Your task to perform on an android device: Show me popular games on the Play Store Image 0: 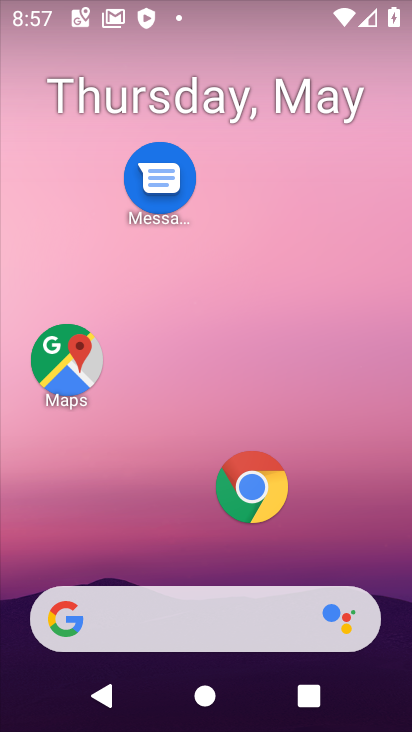
Step 0: drag from (237, 570) to (106, 44)
Your task to perform on an android device: Show me popular games on the Play Store Image 1: 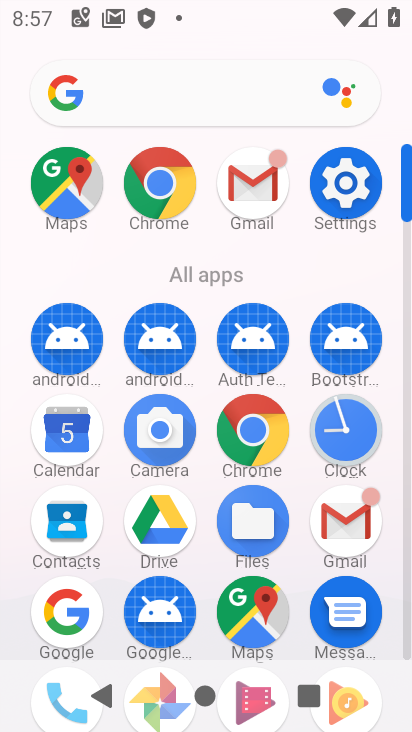
Step 1: drag from (98, 557) to (72, 230)
Your task to perform on an android device: Show me popular games on the Play Store Image 2: 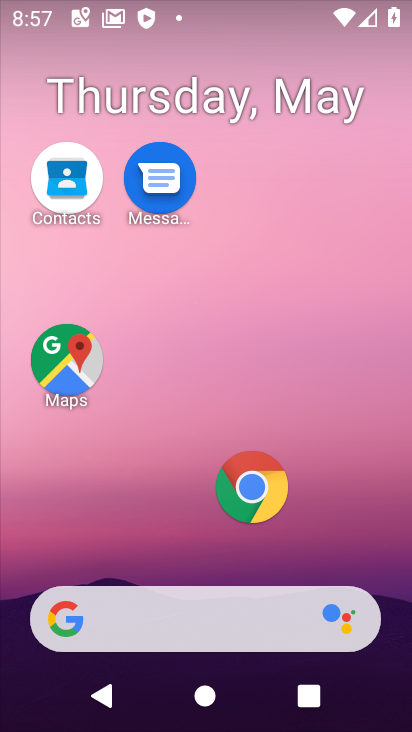
Step 2: drag from (226, 554) to (321, 441)
Your task to perform on an android device: Show me popular games on the Play Store Image 3: 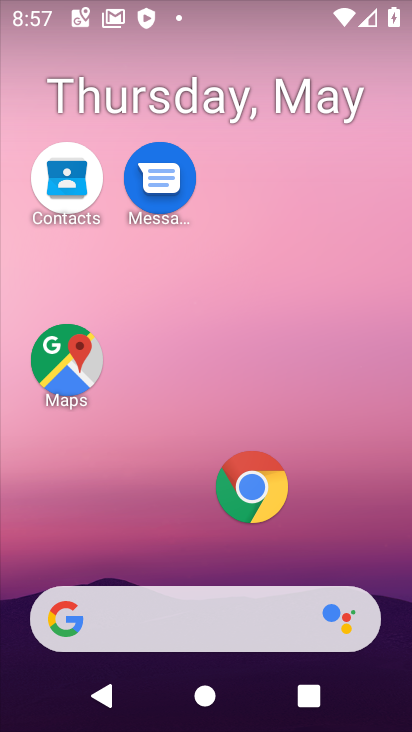
Step 3: drag from (281, 565) to (206, 29)
Your task to perform on an android device: Show me popular games on the Play Store Image 4: 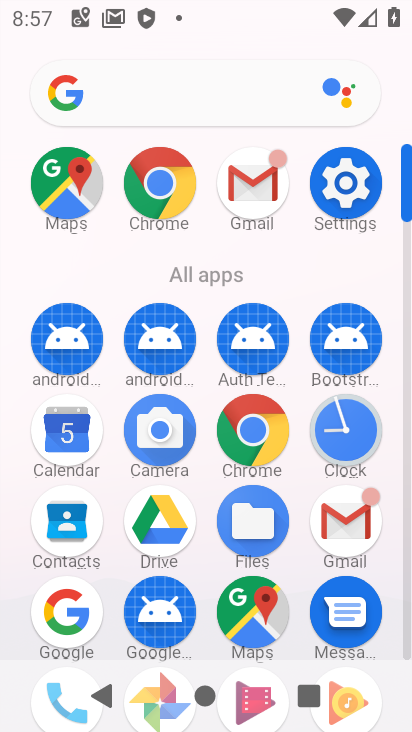
Step 4: drag from (298, 649) to (247, 359)
Your task to perform on an android device: Show me popular games on the Play Store Image 5: 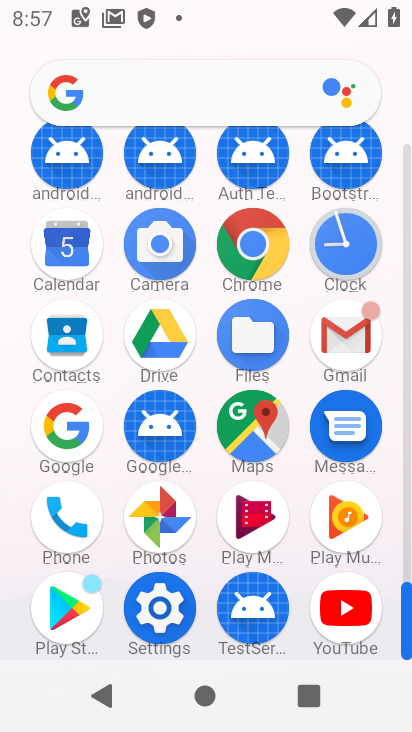
Step 5: click (76, 604)
Your task to perform on an android device: Show me popular games on the Play Store Image 6: 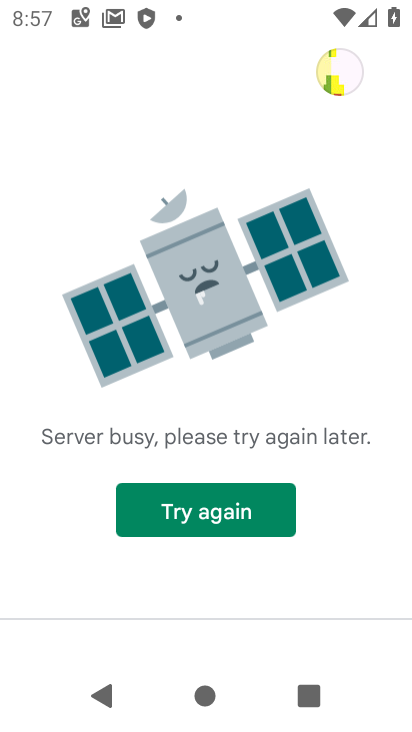
Step 6: click (219, 492)
Your task to perform on an android device: Show me popular games on the Play Store Image 7: 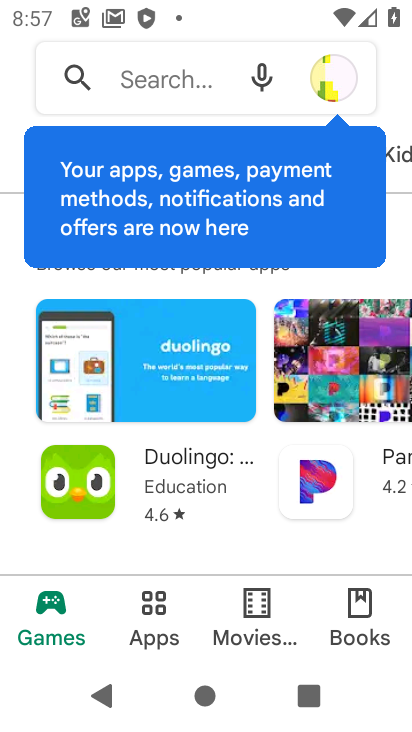
Step 7: click (159, 598)
Your task to perform on an android device: Show me popular games on the Play Store Image 8: 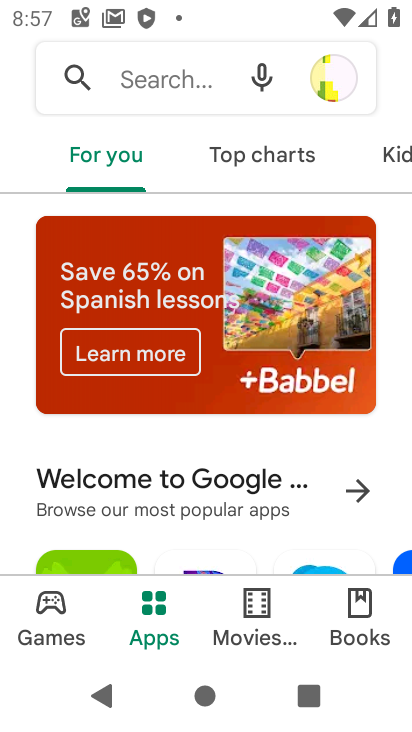
Step 8: drag from (371, 179) to (80, 167)
Your task to perform on an android device: Show me popular games on the Play Store Image 9: 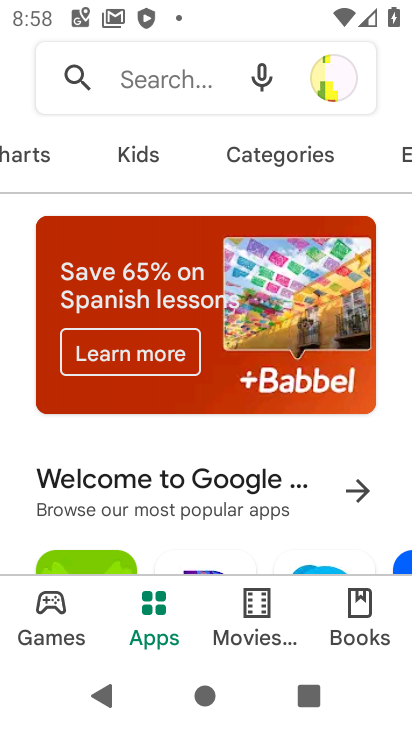
Step 9: click (296, 146)
Your task to perform on an android device: Show me popular games on the Play Store Image 10: 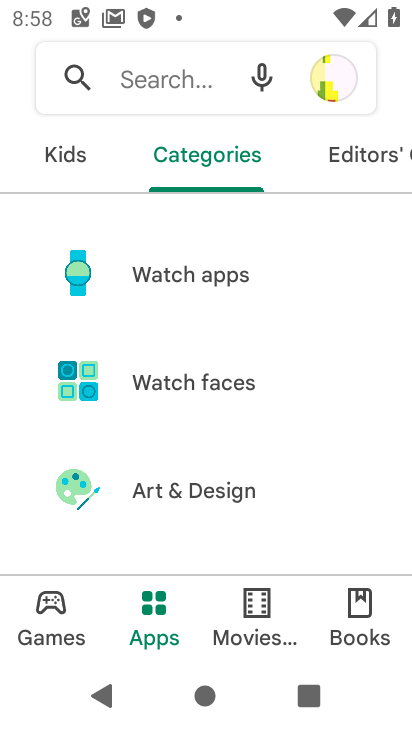
Step 10: drag from (317, 540) to (232, 114)
Your task to perform on an android device: Show me popular games on the Play Store Image 11: 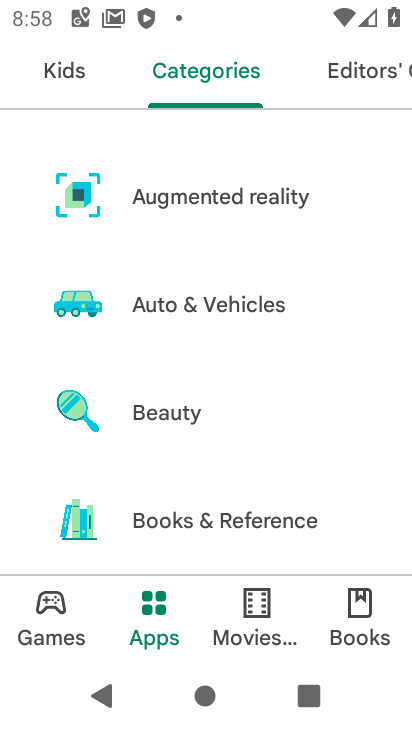
Step 11: drag from (273, 542) to (186, 1)
Your task to perform on an android device: Show me popular games on the Play Store Image 12: 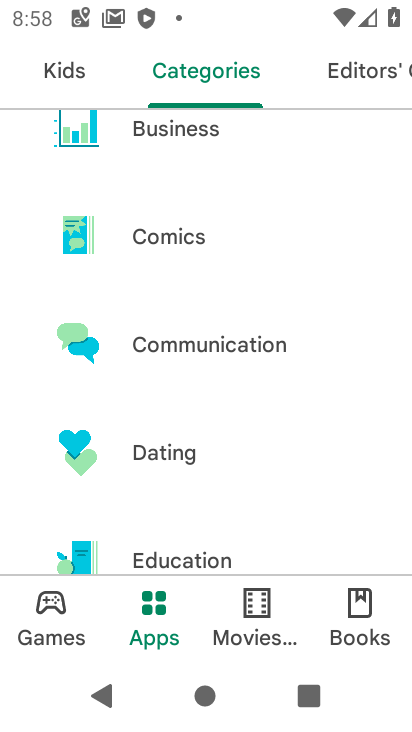
Step 12: drag from (268, 485) to (180, 59)
Your task to perform on an android device: Show me popular games on the Play Store Image 13: 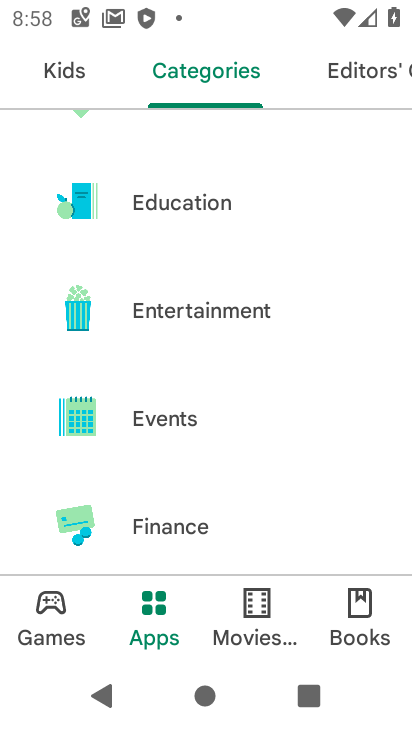
Step 13: drag from (313, 520) to (283, 45)
Your task to perform on an android device: Show me popular games on the Play Store Image 14: 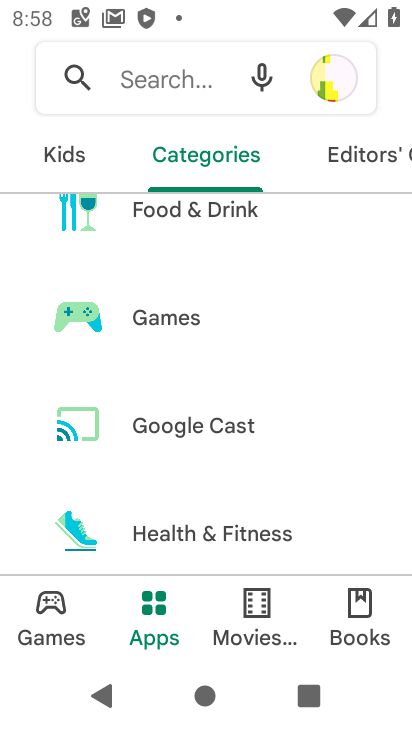
Step 14: drag from (294, 521) to (206, 24)
Your task to perform on an android device: Show me popular games on the Play Store Image 15: 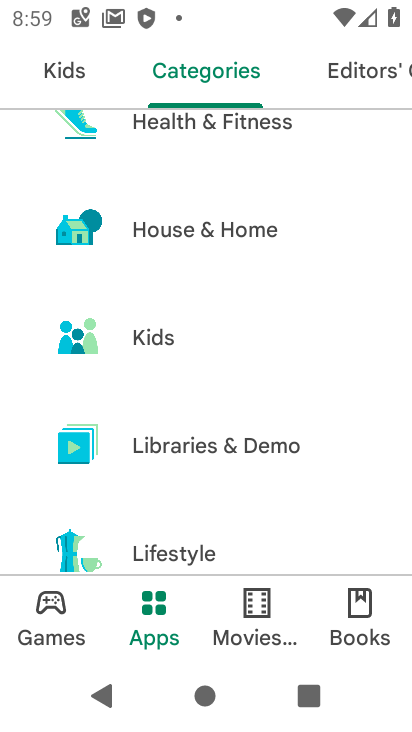
Step 15: drag from (249, 512) to (219, 173)
Your task to perform on an android device: Show me popular games on the Play Store Image 16: 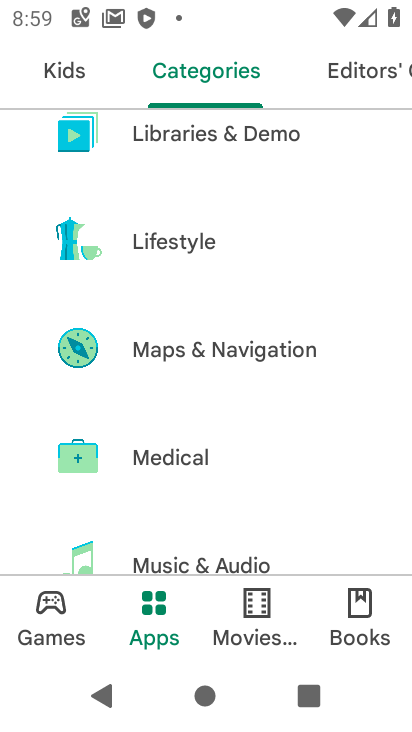
Step 16: drag from (333, 504) to (253, 120)
Your task to perform on an android device: Show me popular games on the Play Store Image 17: 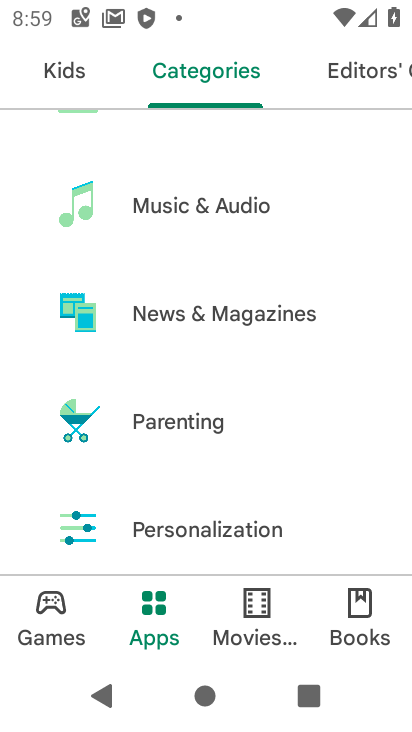
Step 17: drag from (234, 453) to (223, 318)
Your task to perform on an android device: Show me popular games on the Play Store Image 18: 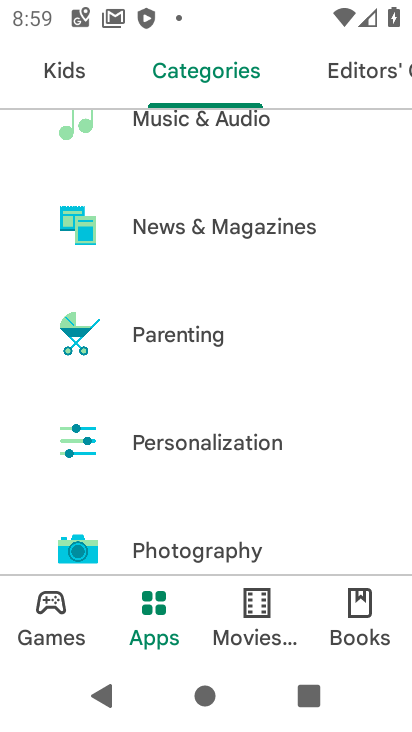
Step 18: drag from (211, 508) to (174, 130)
Your task to perform on an android device: Show me popular games on the Play Store Image 19: 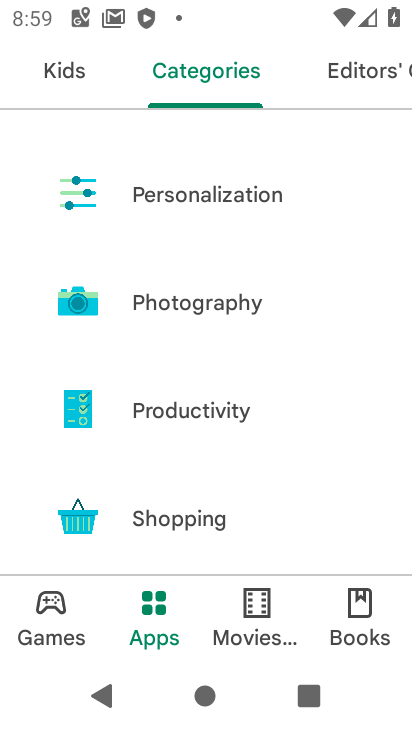
Step 19: click (65, 595)
Your task to perform on an android device: Show me popular games on the Play Store Image 20: 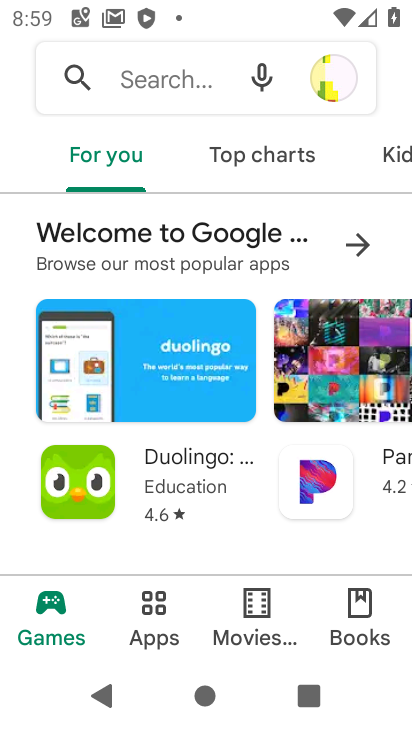
Step 20: drag from (283, 400) to (13, 265)
Your task to perform on an android device: Show me popular games on the Play Store Image 21: 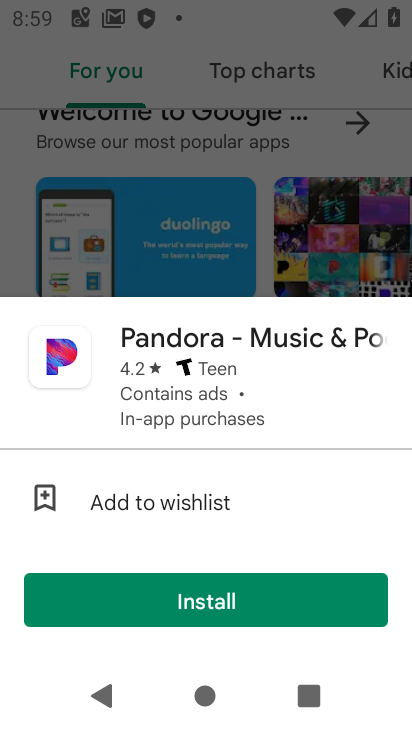
Step 21: click (301, 158)
Your task to perform on an android device: Show me popular games on the Play Store Image 22: 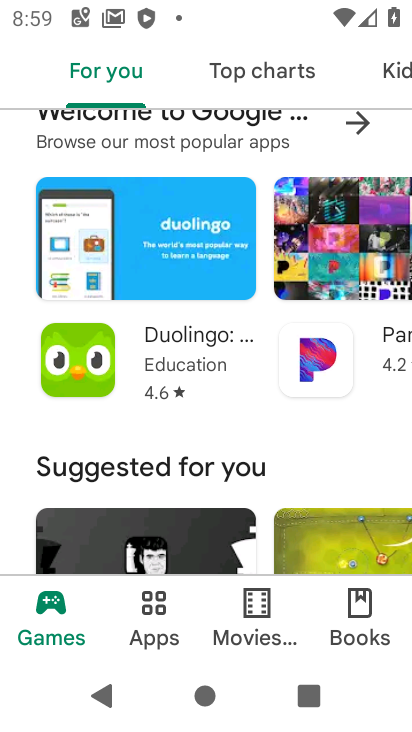
Step 22: drag from (250, 459) to (162, 221)
Your task to perform on an android device: Show me popular games on the Play Store Image 23: 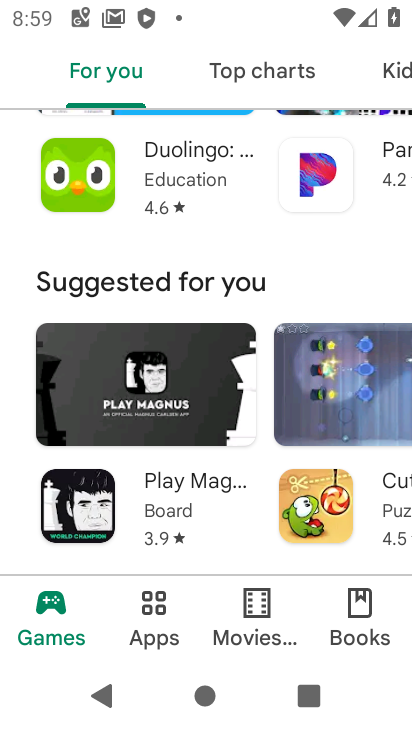
Step 23: click (162, 221)
Your task to perform on an android device: Show me popular games on the Play Store Image 24: 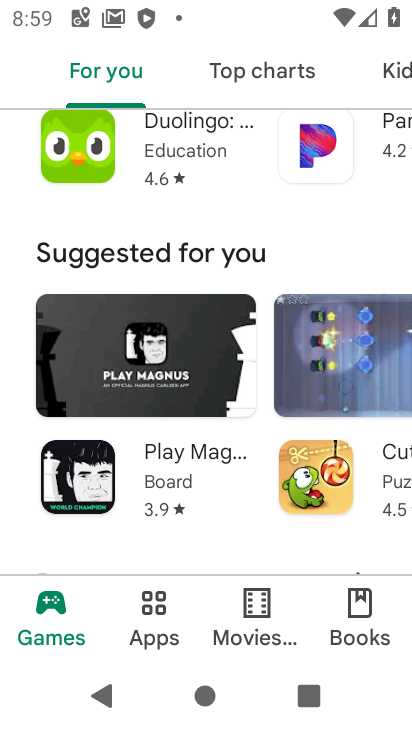
Step 24: task complete